Your task to perform on an android device: see tabs open on other devices in the chrome app Image 0: 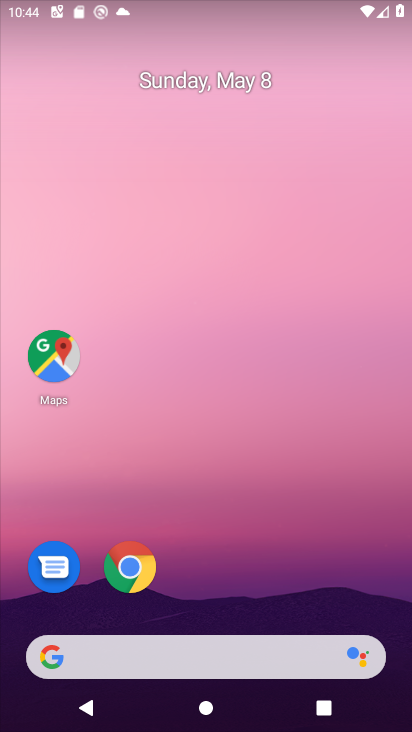
Step 0: click (147, 581)
Your task to perform on an android device: see tabs open on other devices in the chrome app Image 1: 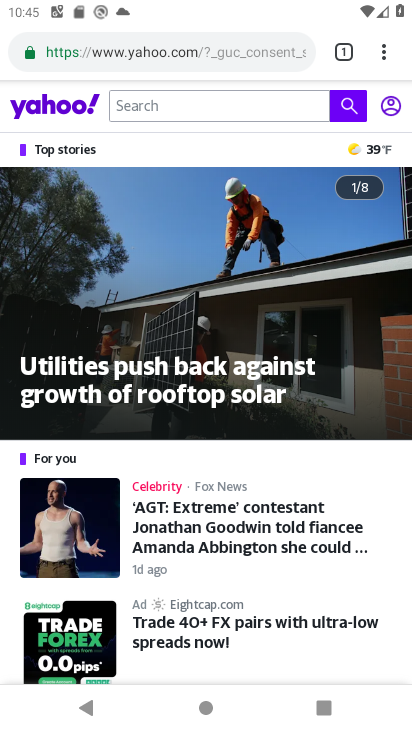
Step 1: click (386, 54)
Your task to perform on an android device: see tabs open on other devices in the chrome app Image 2: 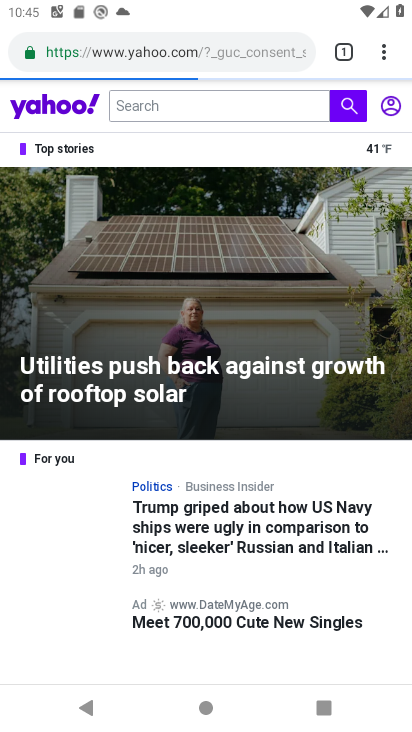
Step 2: click (384, 49)
Your task to perform on an android device: see tabs open on other devices in the chrome app Image 3: 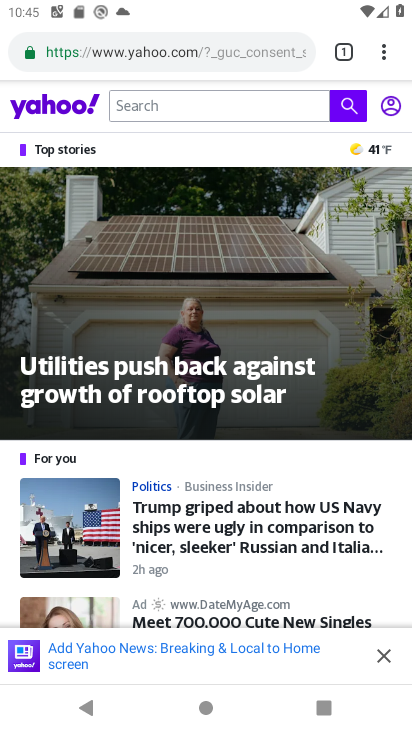
Step 3: click (388, 50)
Your task to perform on an android device: see tabs open on other devices in the chrome app Image 4: 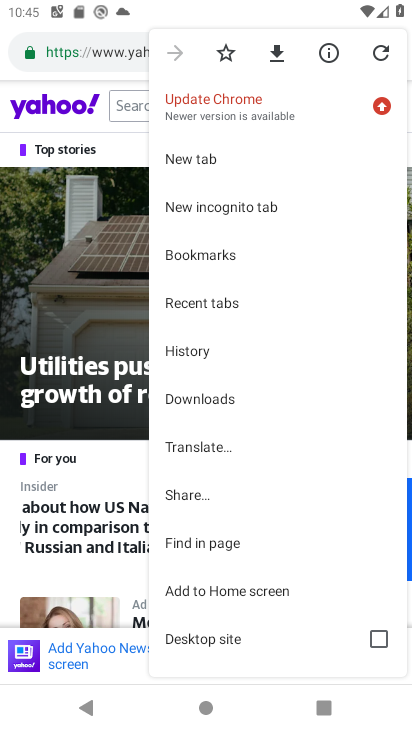
Step 4: click (229, 304)
Your task to perform on an android device: see tabs open on other devices in the chrome app Image 5: 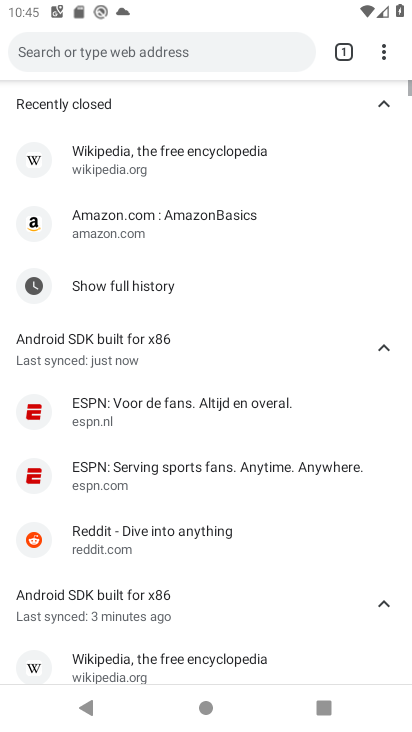
Step 5: task complete